Your task to perform on an android device: Open calendar and show me the second week of next month Image 0: 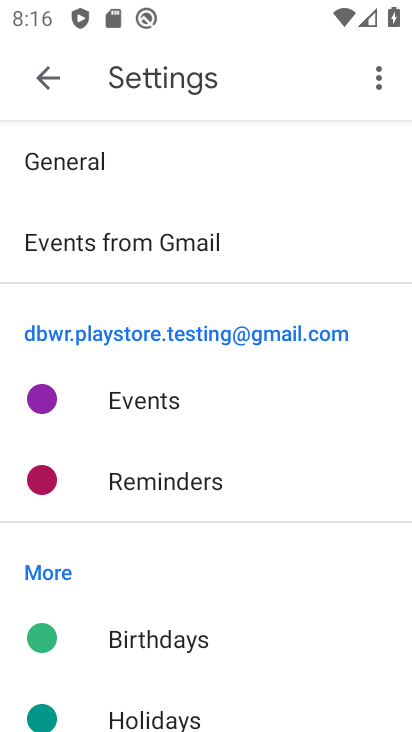
Step 0: press home button
Your task to perform on an android device: Open calendar and show me the second week of next month Image 1: 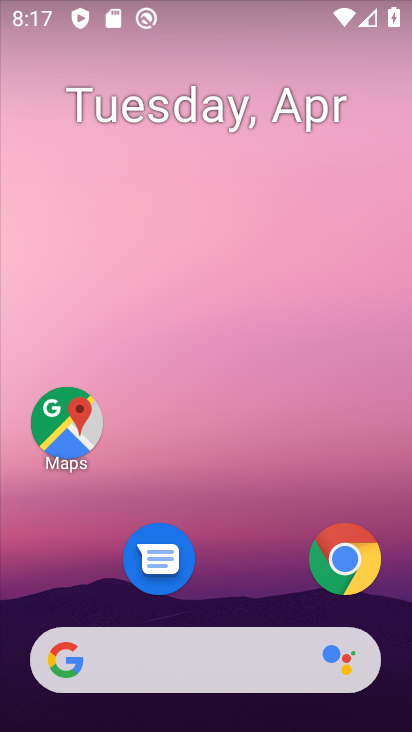
Step 1: drag from (179, 704) to (152, 140)
Your task to perform on an android device: Open calendar and show me the second week of next month Image 2: 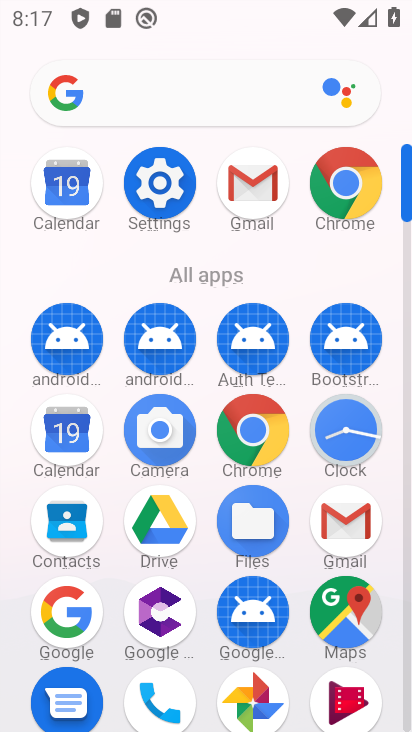
Step 2: click (68, 195)
Your task to perform on an android device: Open calendar and show me the second week of next month Image 3: 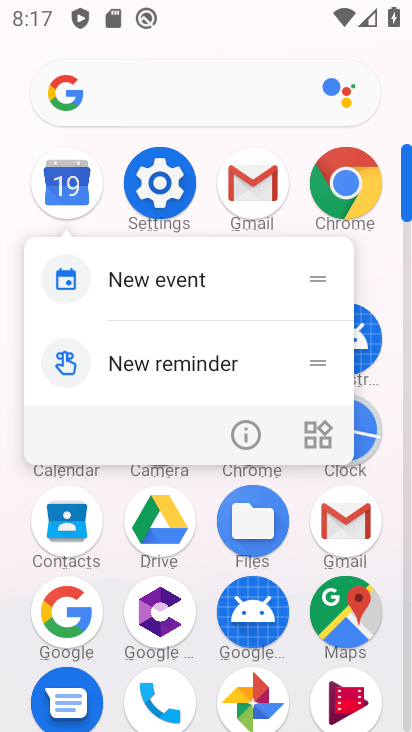
Step 3: click (68, 195)
Your task to perform on an android device: Open calendar and show me the second week of next month Image 4: 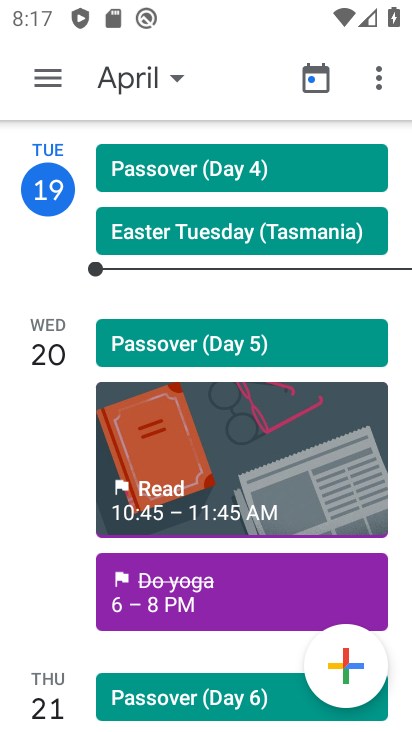
Step 4: click (44, 71)
Your task to perform on an android device: Open calendar and show me the second week of next month Image 5: 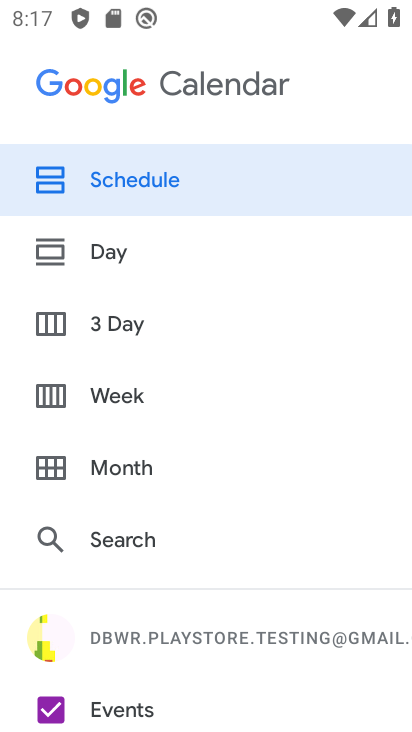
Step 5: click (108, 474)
Your task to perform on an android device: Open calendar and show me the second week of next month Image 6: 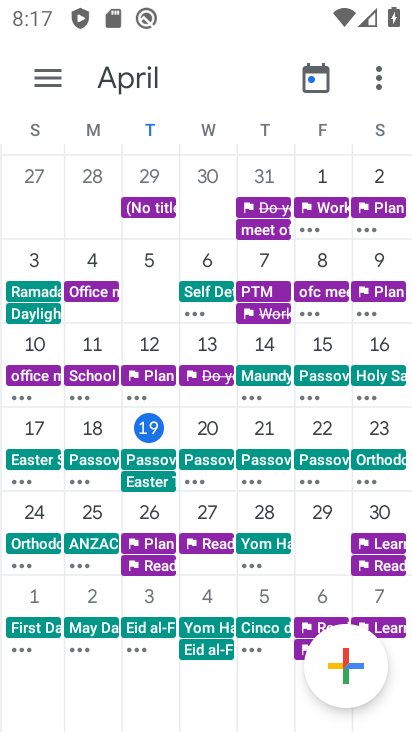
Step 6: drag from (387, 485) to (2, 422)
Your task to perform on an android device: Open calendar and show me the second week of next month Image 7: 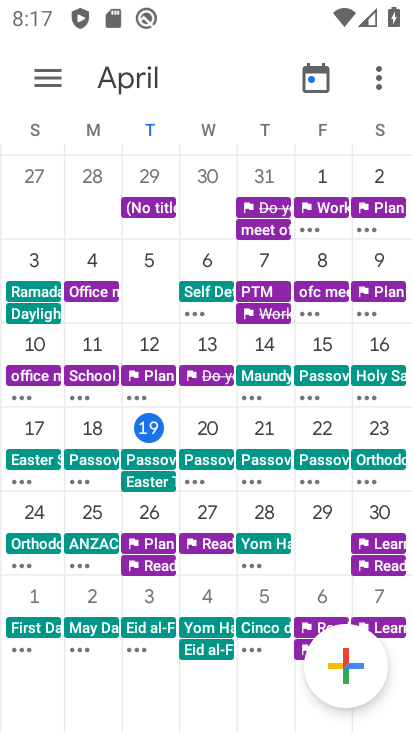
Step 7: drag from (395, 345) to (9, 308)
Your task to perform on an android device: Open calendar and show me the second week of next month Image 8: 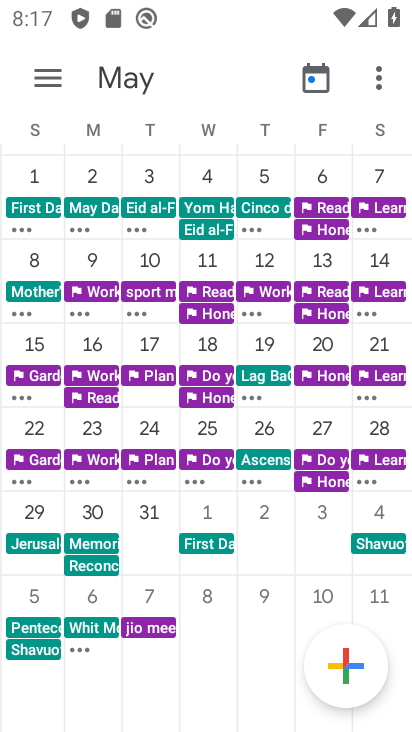
Step 8: click (59, 270)
Your task to perform on an android device: Open calendar and show me the second week of next month Image 9: 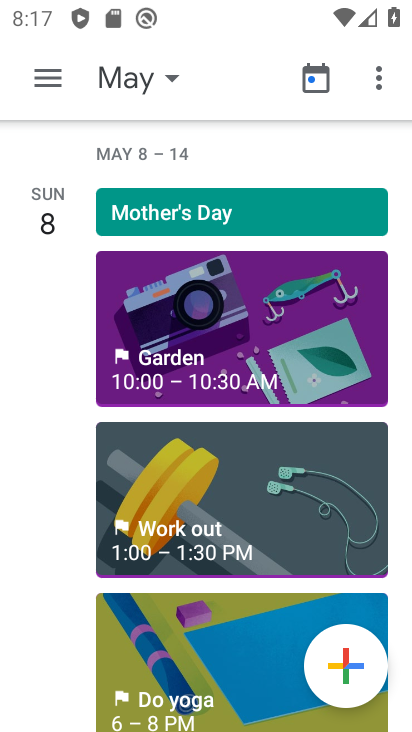
Step 9: task complete